Your task to perform on an android device: Open Yahoo.com Image 0: 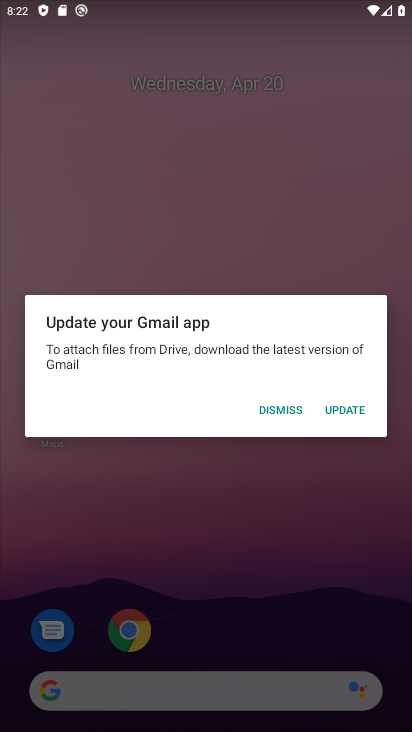
Step 0: click (287, 410)
Your task to perform on an android device: Open Yahoo.com Image 1: 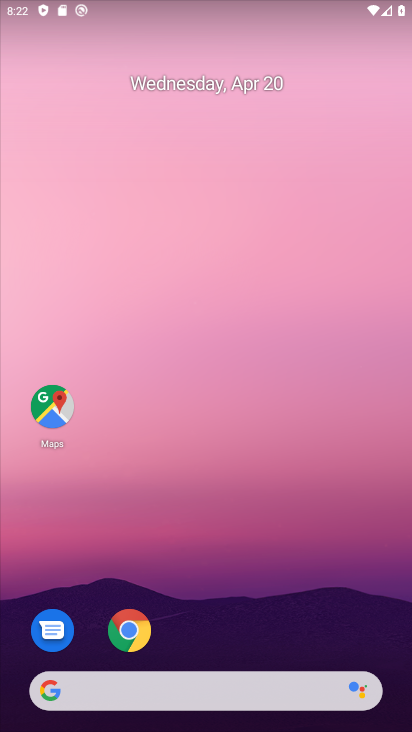
Step 1: click (127, 616)
Your task to perform on an android device: Open Yahoo.com Image 2: 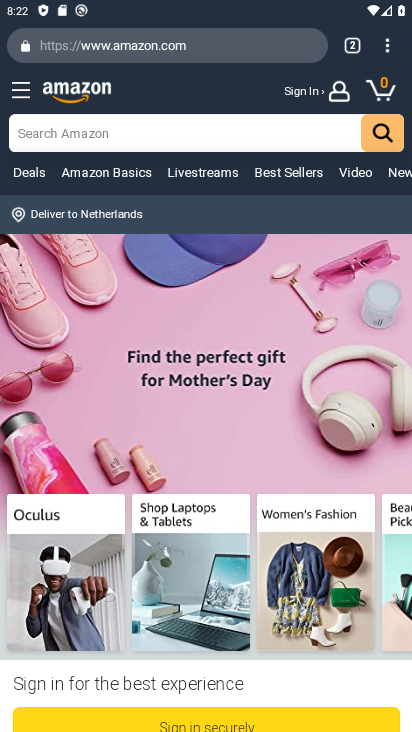
Step 2: click (383, 47)
Your task to perform on an android device: Open Yahoo.com Image 3: 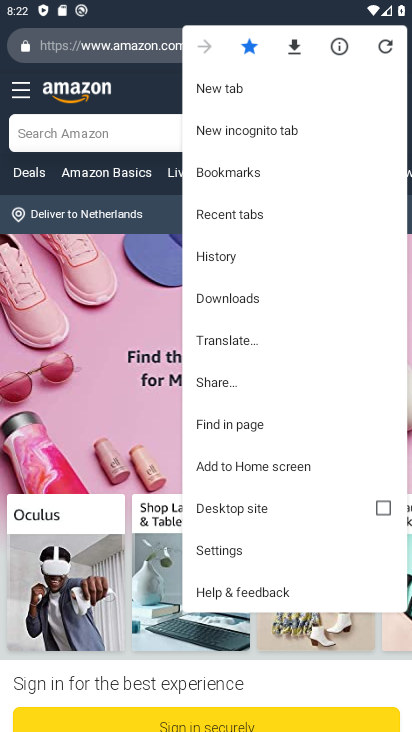
Step 3: click (216, 82)
Your task to perform on an android device: Open Yahoo.com Image 4: 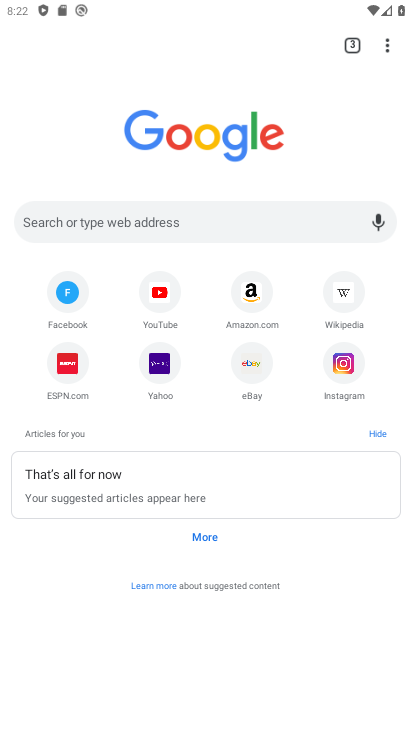
Step 4: click (163, 374)
Your task to perform on an android device: Open Yahoo.com Image 5: 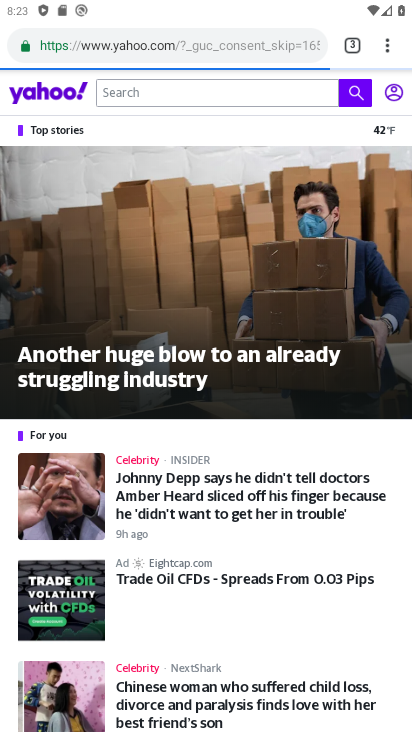
Step 5: task complete